Your task to perform on an android device: turn off wifi Image 0: 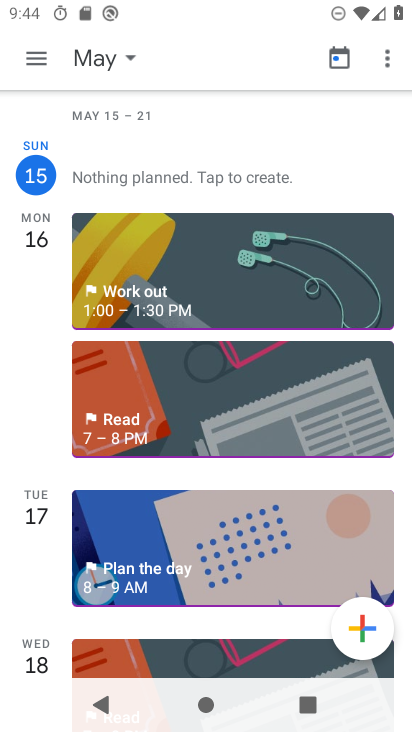
Step 0: press home button
Your task to perform on an android device: turn off wifi Image 1: 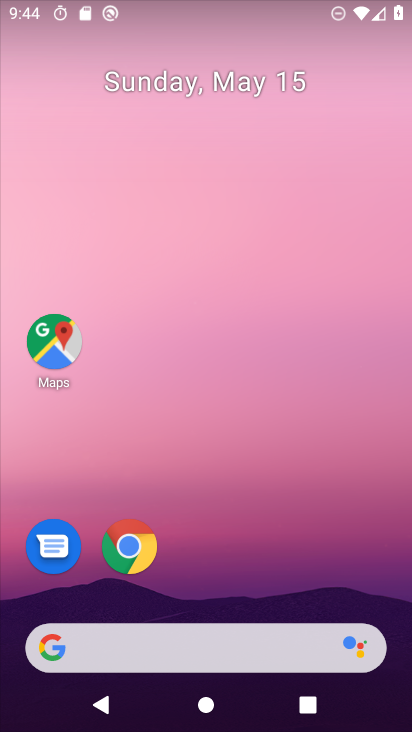
Step 1: drag from (231, 483) to (300, 0)
Your task to perform on an android device: turn off wifi Image 2: 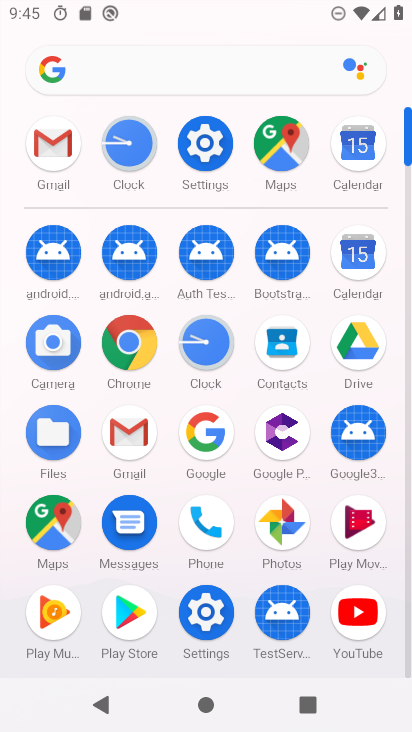
Step 2: click (214, 129)
Your task to perform on an android device: turn off wifi Image 3: 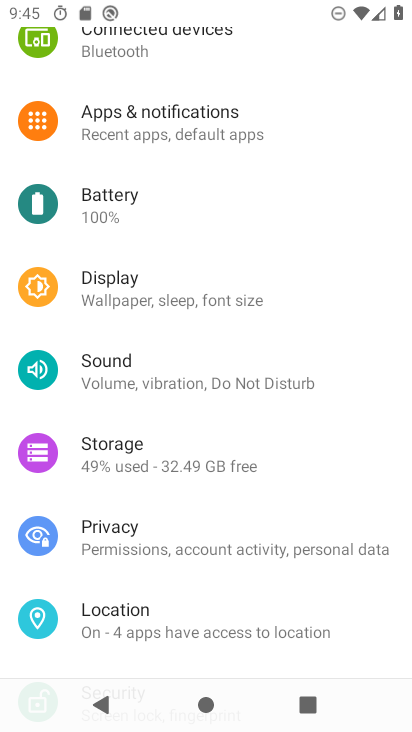
Step 3: drag from (201, 192) to (248, 440)
Your task to perform on an android device: turn off wifi Image 4: 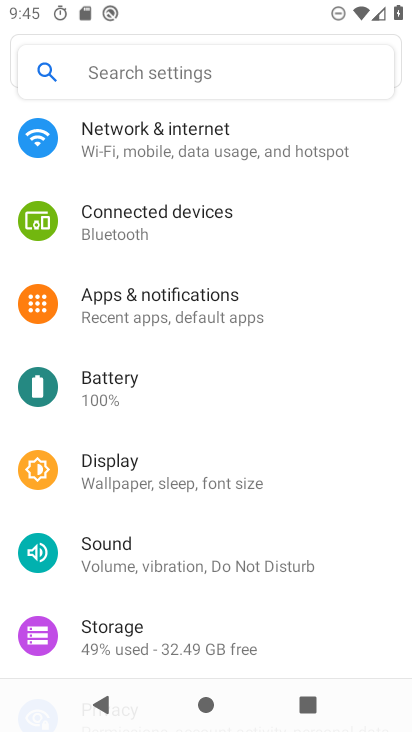
Step 4: click (283, 133)
Your task to perform on an android device: turn off wifi Image 5: 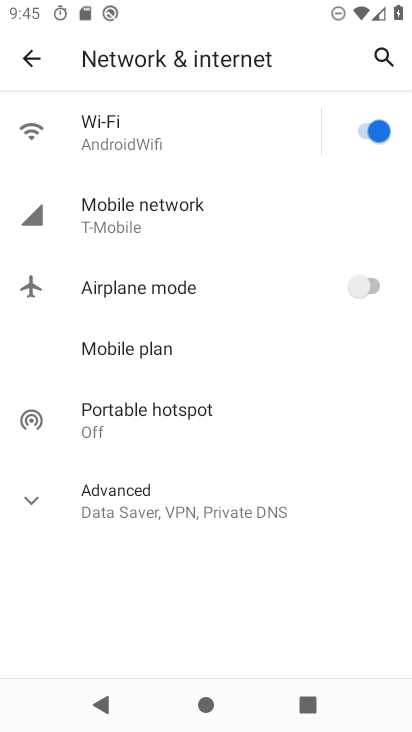
Step 5: click (357, 120)
Your task to perform on an android device: turn off wifi Image 6: 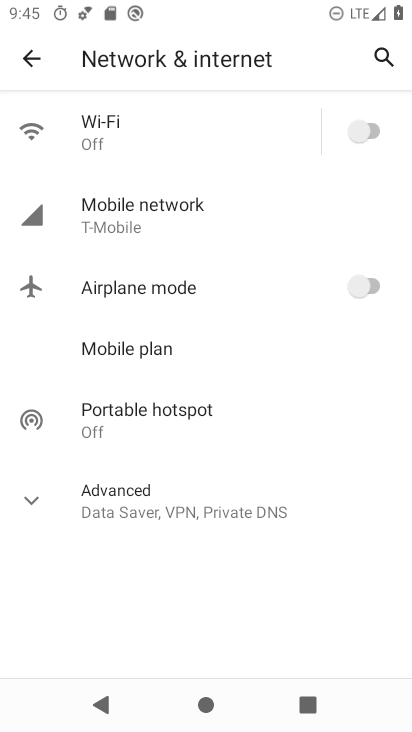
Step 6: task complete